Your task to perform on an android device: uninstall "Lyft - Rideshare, Bikes, Scooters & Transit" Image 0: 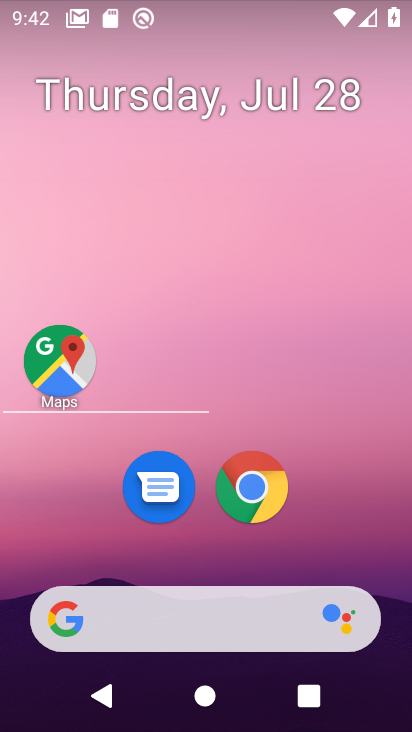
Step 0: click (221, 292)
Your task to perform on an android device: uninstall "Lyft - Rideshare, Bikes, Scooters & Transit" Image 1: 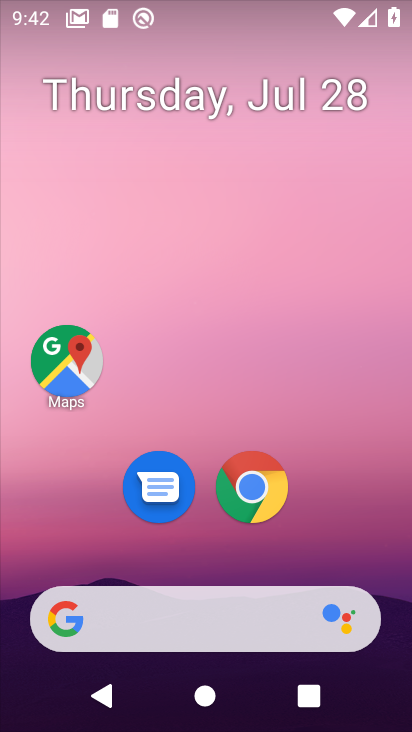
Step 1: drag from (211, 531) to (257, 268)
Your task to perform on an android device: uninstall "Lyft - Rideshare, Bikes, Scooters & Transit" Image 2: 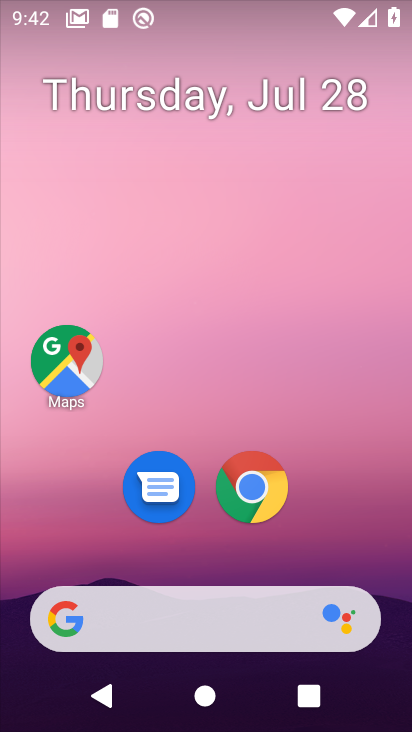
Step 2: drag from (219, 544) to (284, 155)
Your task to perform on an android device: uninstall "Lyft - Rideshare, Bikes, Scooters & Transit" Image 3: 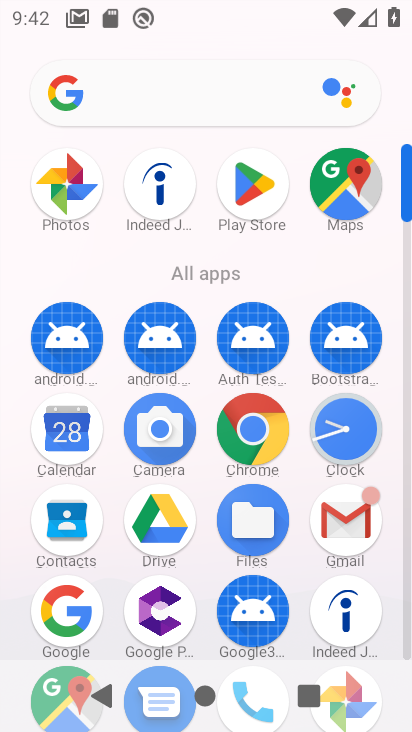
Step 3: drag from (213, 549) to (197, 198)
Your task to perform on an android device: uninstall "Lyft - Rideshare, Bikes, Scooters & Transit" Image 4: 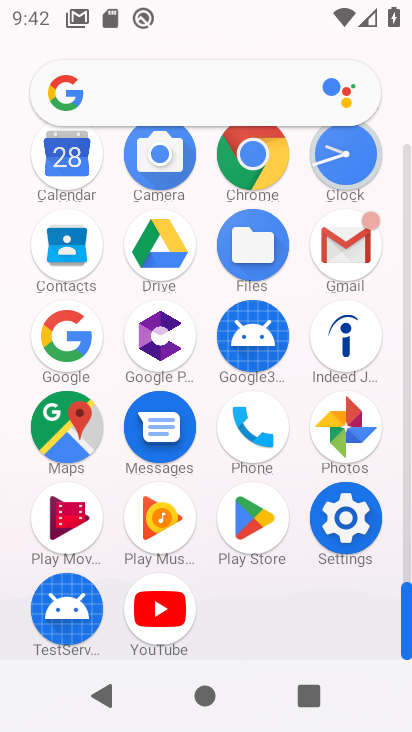
Step 4: drag from (223, 584) to (232, 203)
Your task to perform on an android device: uninstall "Lyft - Rideshare, Bikes, Scooters & Transit" Image 5: 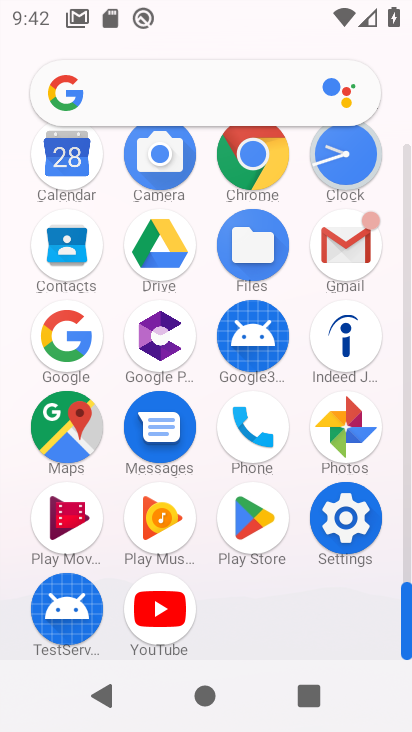
Step 5: drag from (209, 269) to (239, 617)
Your task to perform on an android device: uninstall "Lyft - Rideshare, Bikes, Scooters & Transit" Image 6: 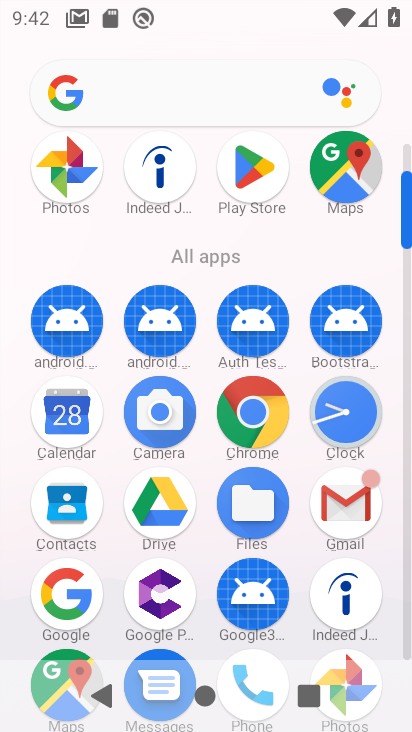
Step 6: drag from (199, 541) to (178, 150)
Your task to perform on an android device: uninstall "Lyft - Rideshare, Bikes, Scooters & Transit" Image 7: 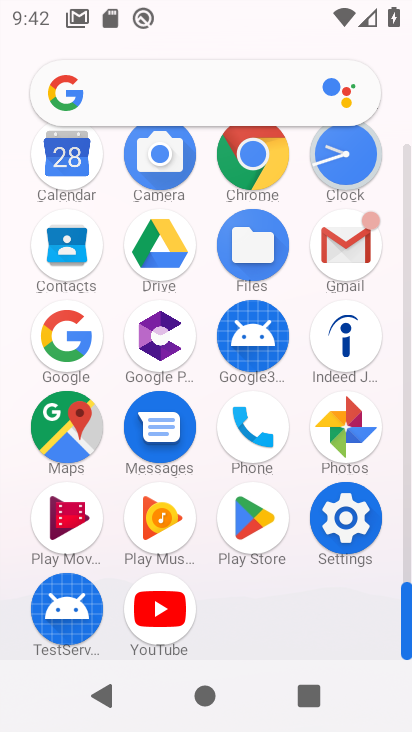
Step 7: click (266, 505)
Your task to perform on an android device: uninstall "Lyft - Rideshare, Bikes, Scooters & Transit" Image 8: 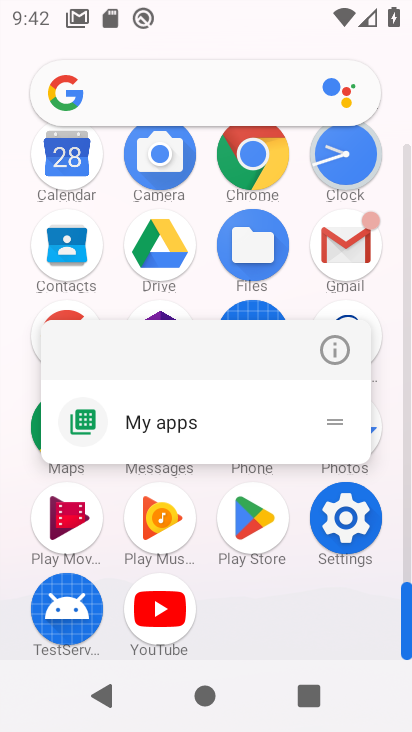
Step 8: click (332, 346)
Your task to perform on an android device: uninstall "Lyft - Rideshare, Bikes, Scooters & Transit" Image 9: 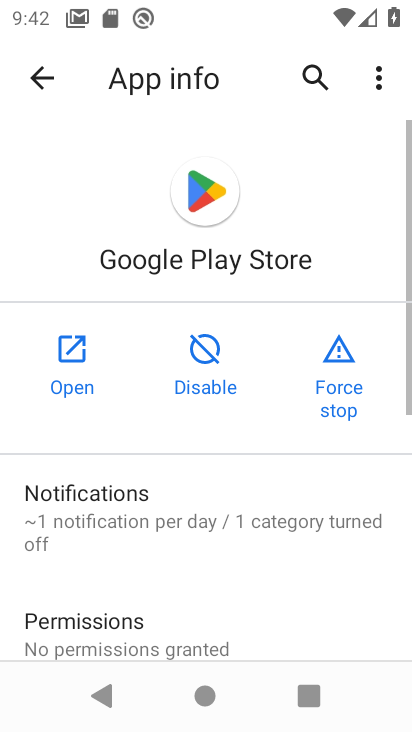
Step 9: click (70, 375)
Your task to perform on an android device: uninstall "Lyft - Rideshare, Bikes, Scooters & Transit" Image 10: 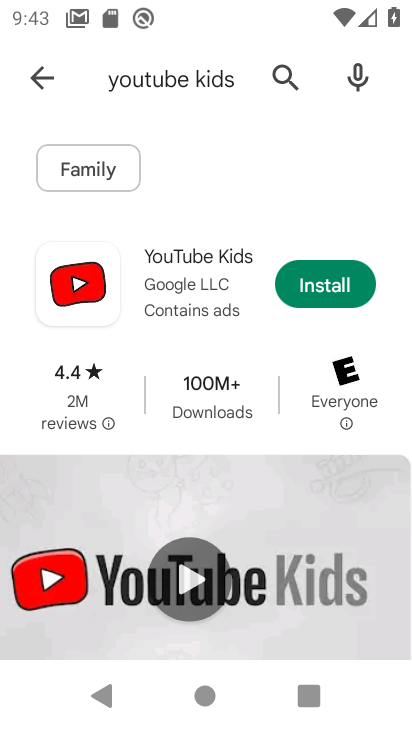
Step 10: click (279, 91)
Your task to perform on an android device: uninstall "Lyft - Rideshare, Bikes, Scooters & Transit" Image 11: 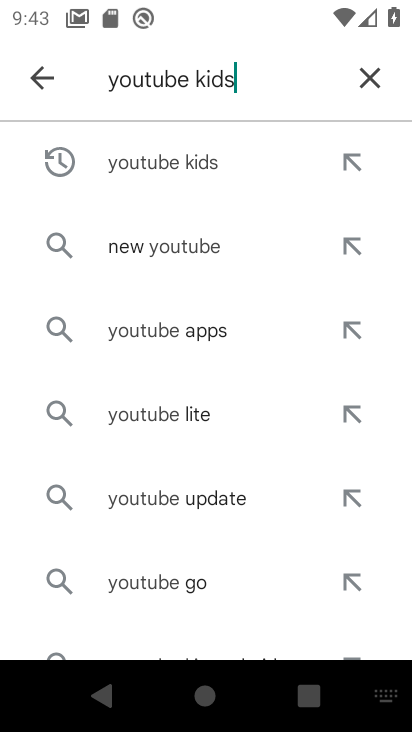
Step 11: click (365, 82)
Your task to perform on an android device: uninstall "Lyft - Rideshare, Bikes, Scooters & Transit" Image 12: 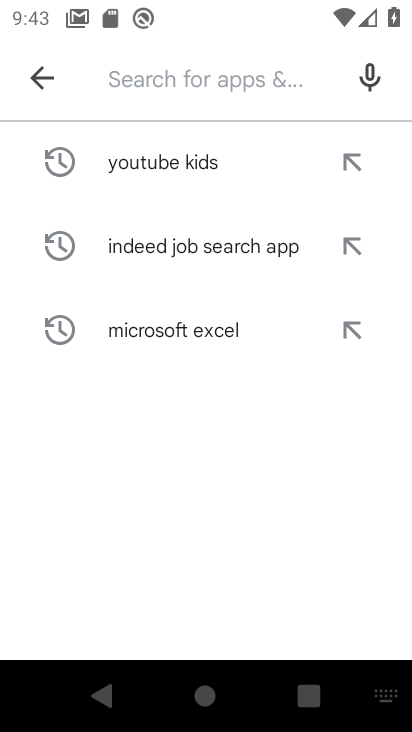
Step 12: type "Lyft - Rideshare, Bikes, Scooters & Transit"
Your task to perform on an android device: uninstall "Lyft - Rideshare, Bikes, Scooters & Transit" Image 13: 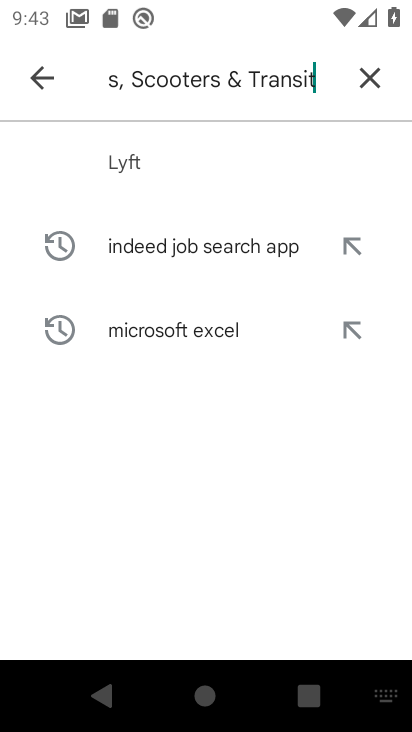
Step 13: type ""
Your task to perform on an android device: uninstall "Lyft - Rideshare, Bikes, Scooters & Transit" Image 14: 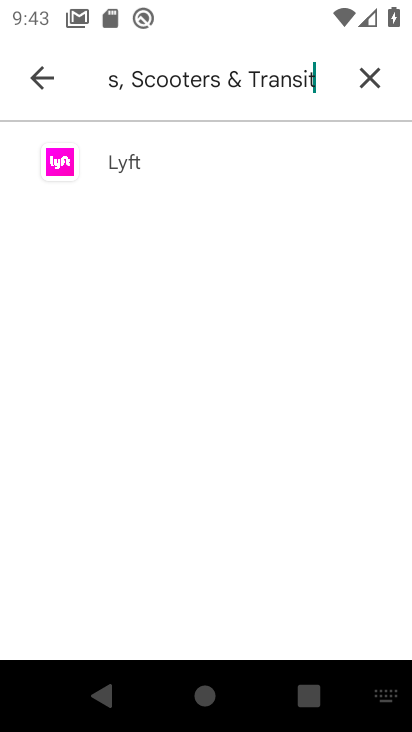
Step 14: click (152, 165)
Your task to perform on an android device: uninstall "Lyft - Rideshare, Bikes, Scooters & Transit" Image 15: 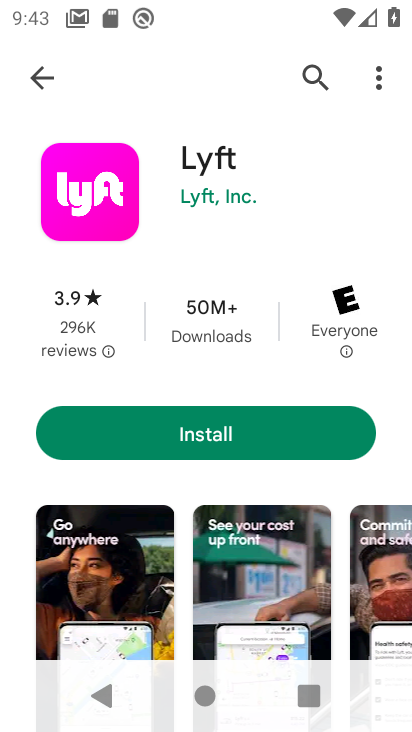
Step 15: task complete